Your task to perform on an android device: open app "Instagram" Image 0: 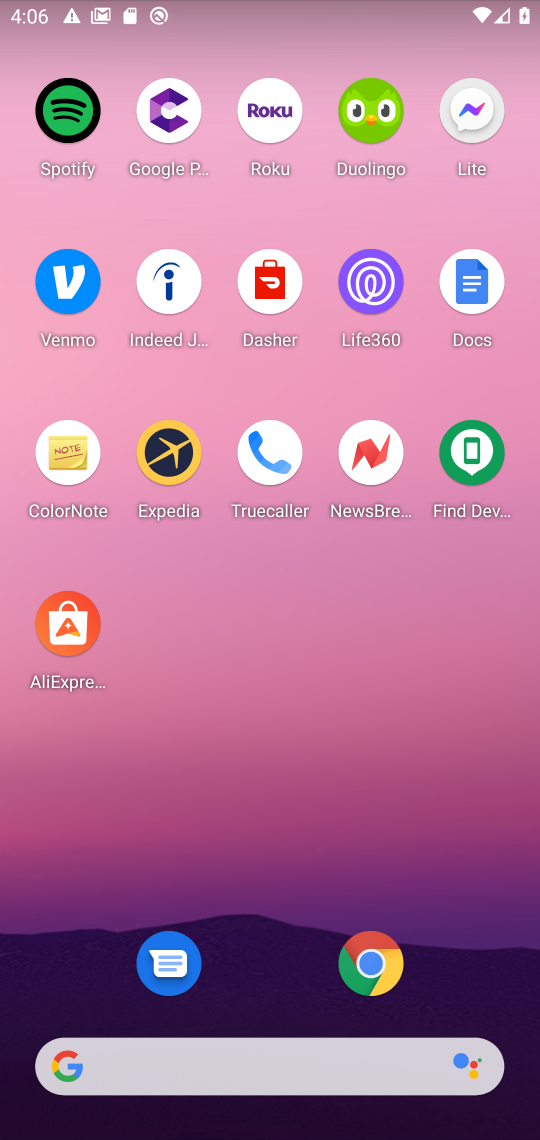
Step 0: press home button
Your task to perform on an android device: open app "Instagram" Image 1: 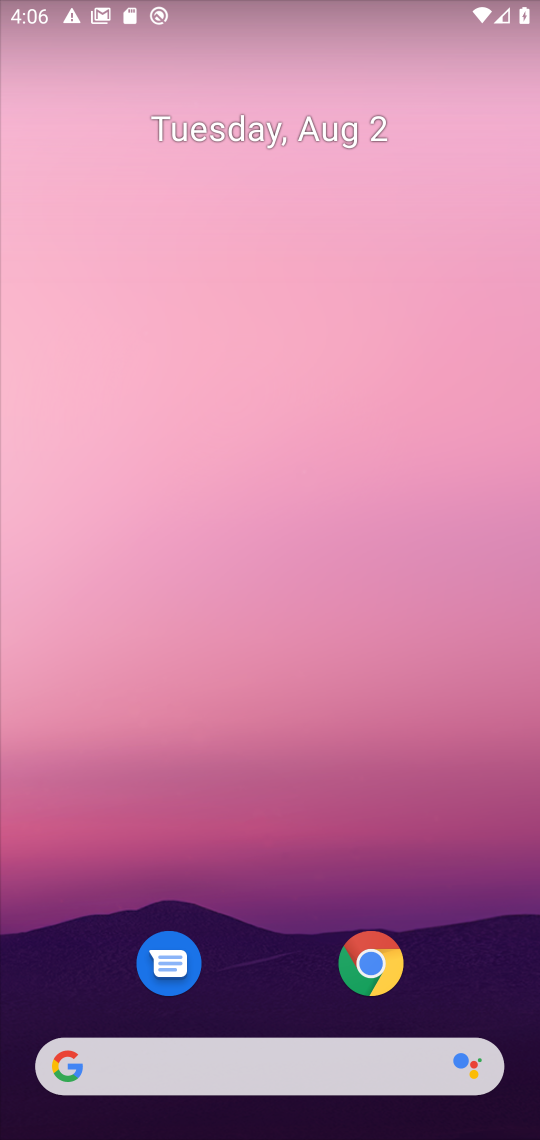
Step 1: drag from (217, 1034) to (188, 209)
Your task to perform on an android device: open app "Instagram" Image 2: 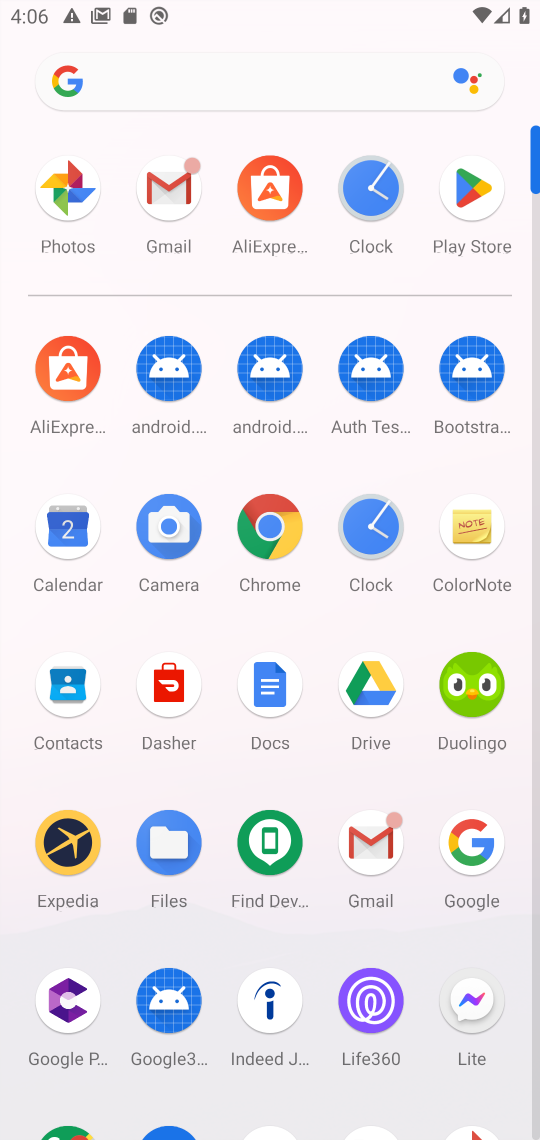
Step 2: click (454, 188)
Your task to perform on an android device: open app "Instagram" Image 3: 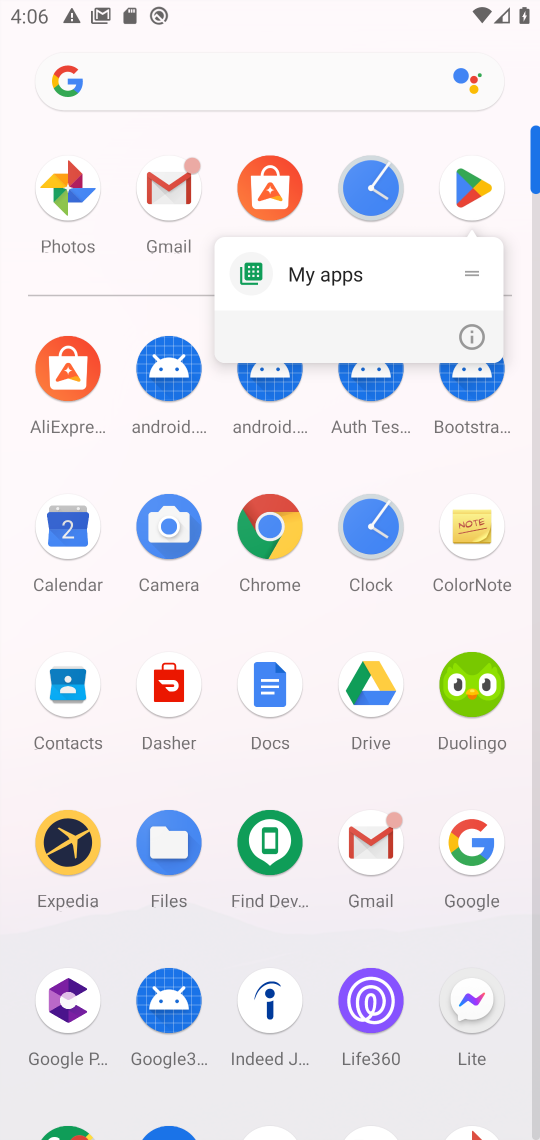
Step 3: click (479, 192)
Your task to perform on an android device: open app "Instagram" Image 4: 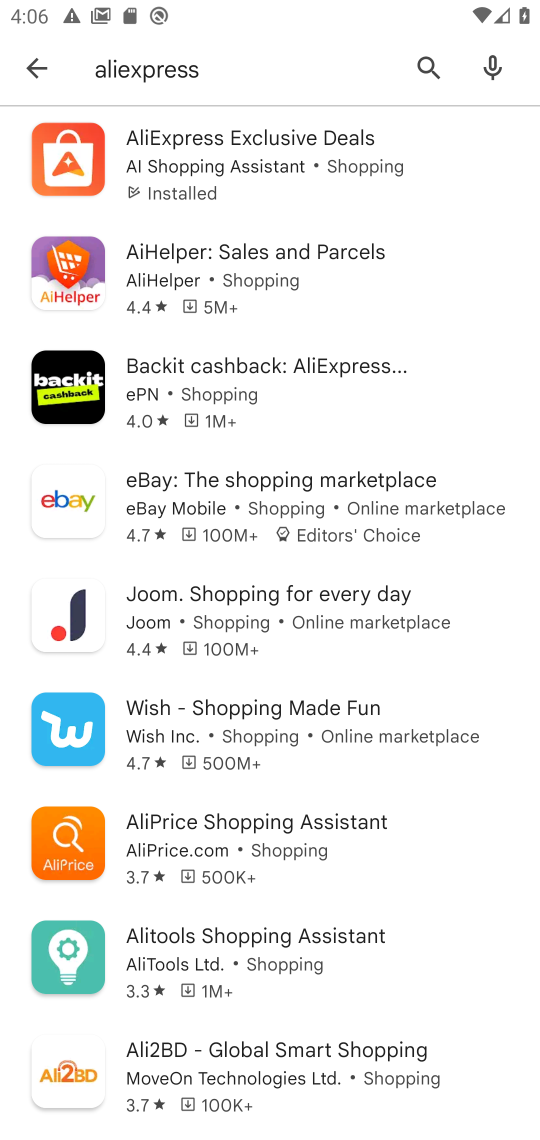
Step 4: click (424, 67)
Your task to perform on an android device: open app "Instagram" Image 5: 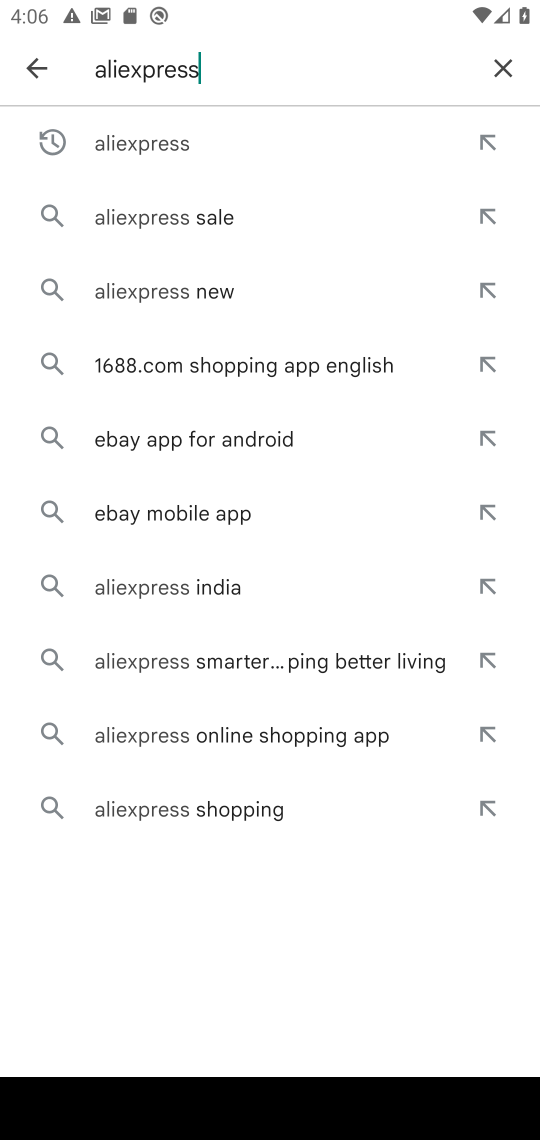
Step 5: click (501, 72)
Your task to perform on an android device: open app "Instagram" Image 6: 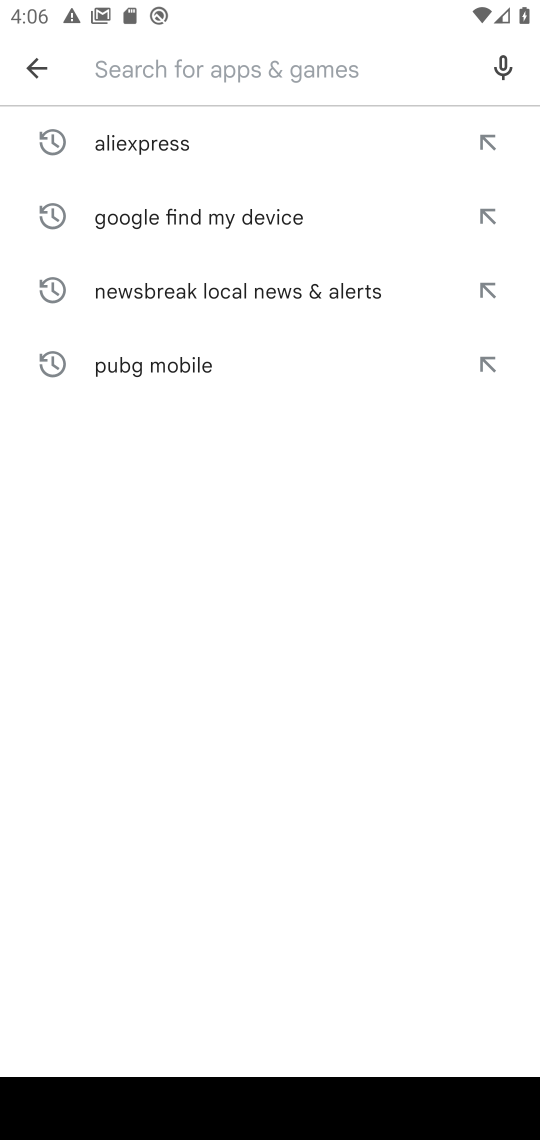
Step 6: type "Instagram"
Your task to perform on an android device: open app "Instagram" Image 7: 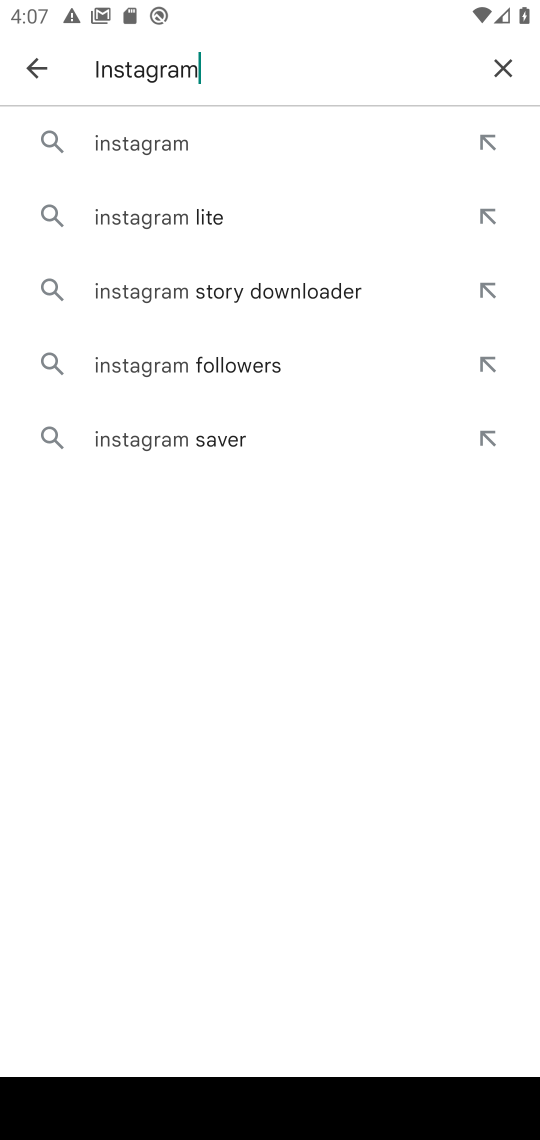
Step 7: click (173, 147)
Your task to perform on an android device: open app "Instagram" Image 8: 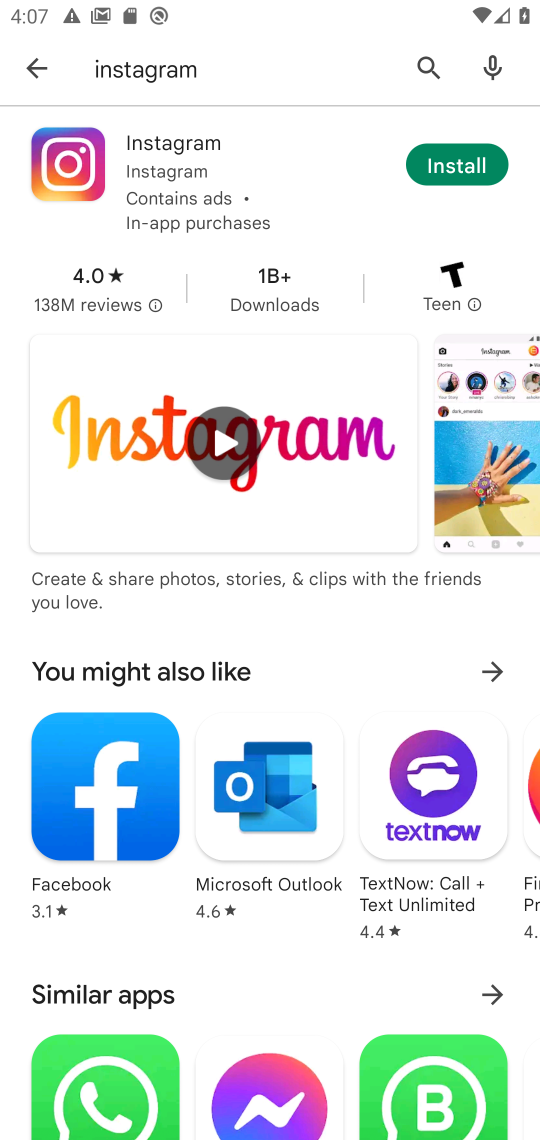
Step 8: click (452, 166)
Your task to perform on an android device: open app "Instagram" Image 9: 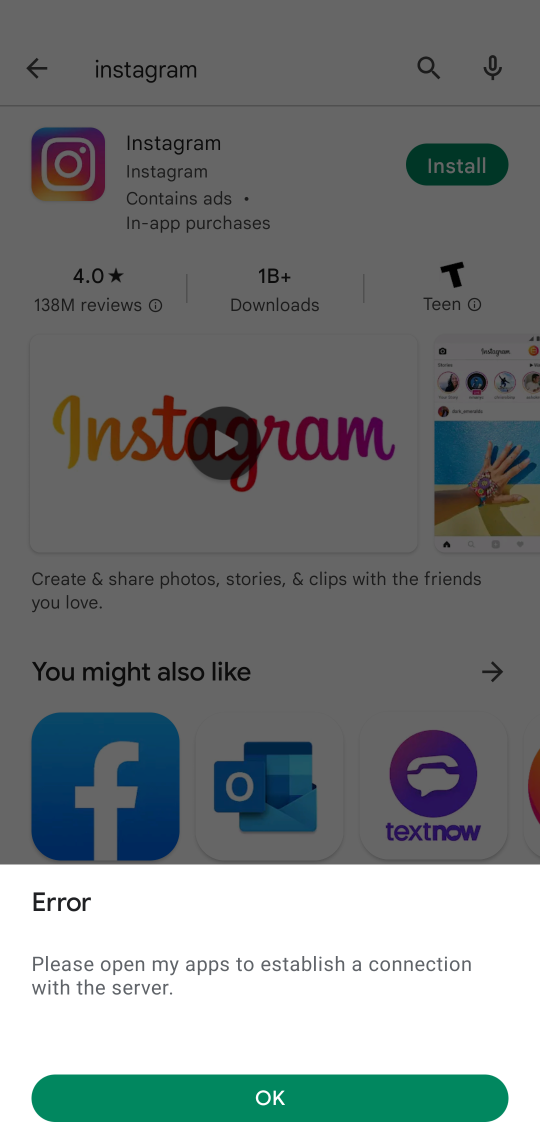
Step 9: click (281, 1098)
Your task to perform on an android device: open app "Instagram" Image 10: 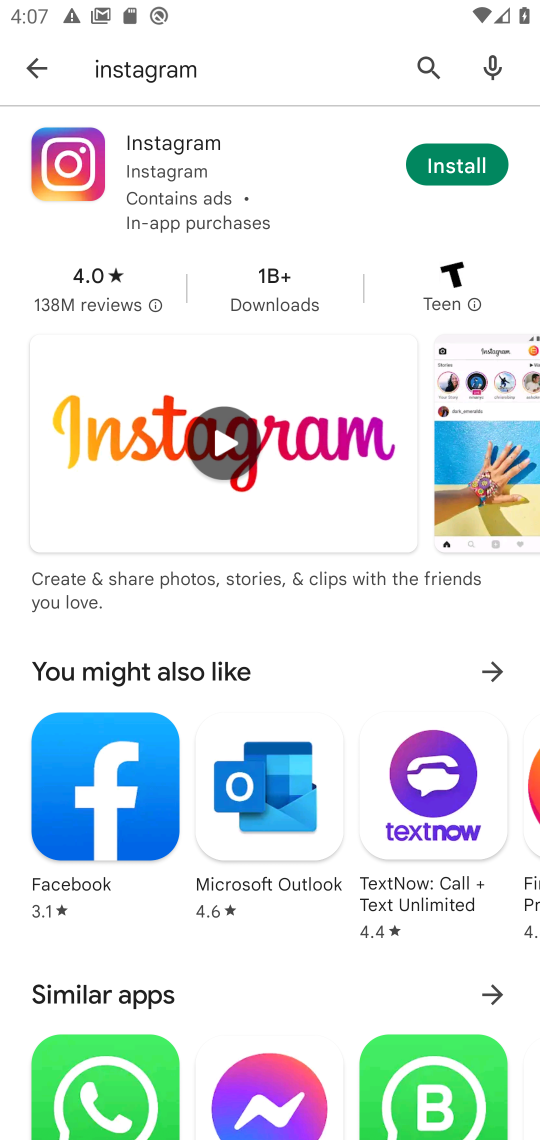
Step 10: click (479, 160)
Your task to perform on an android device: open app "Instagram" Image 11: 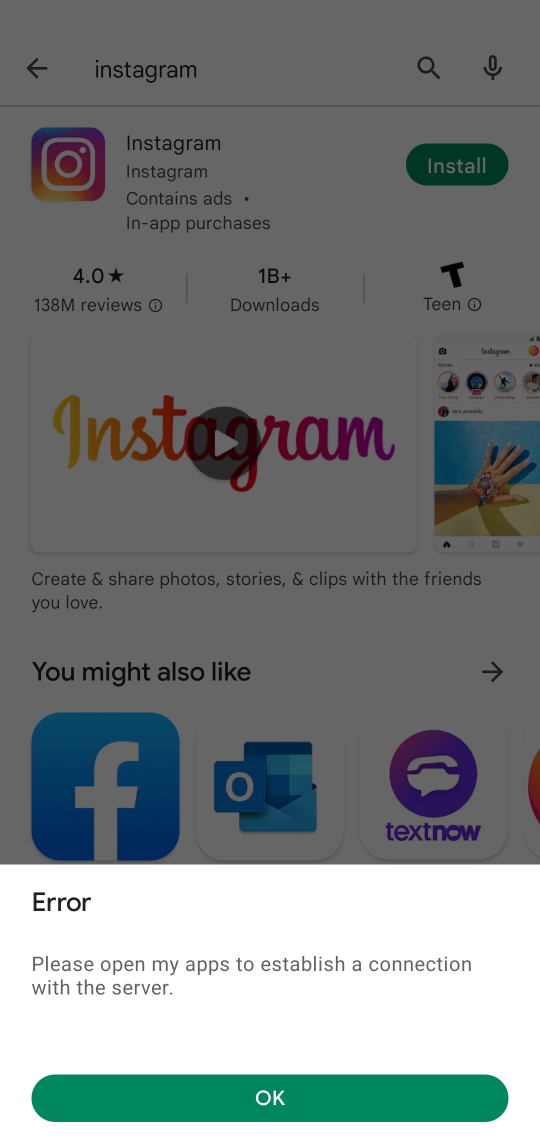
Step 11: click (238, 1092)
Your task to perform on an android device: open app "Instagram" Image 12: 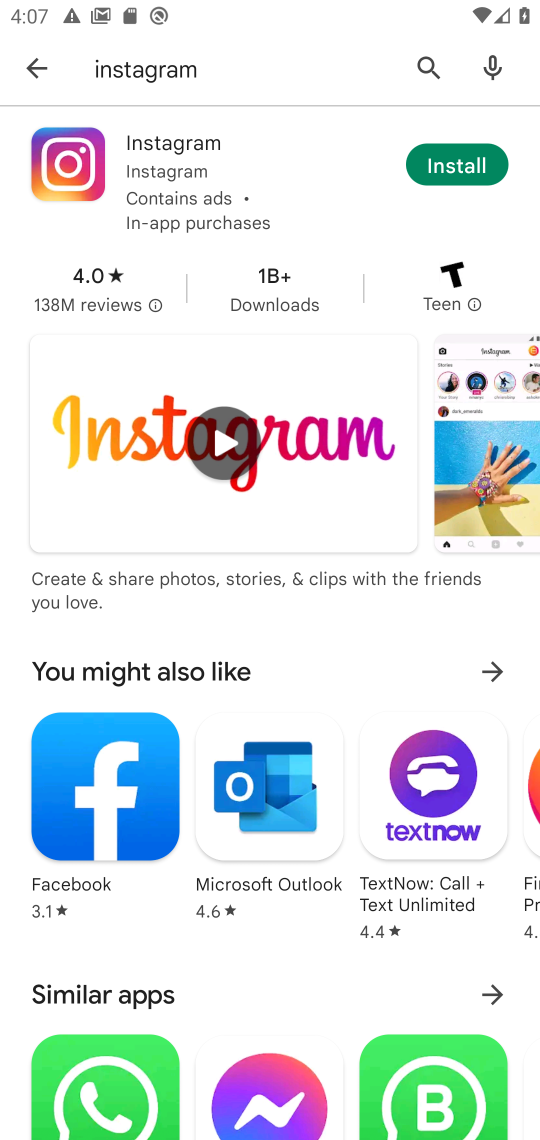
Step 12: task complete